Your task to perform on an android device: set an alarm Image 0: 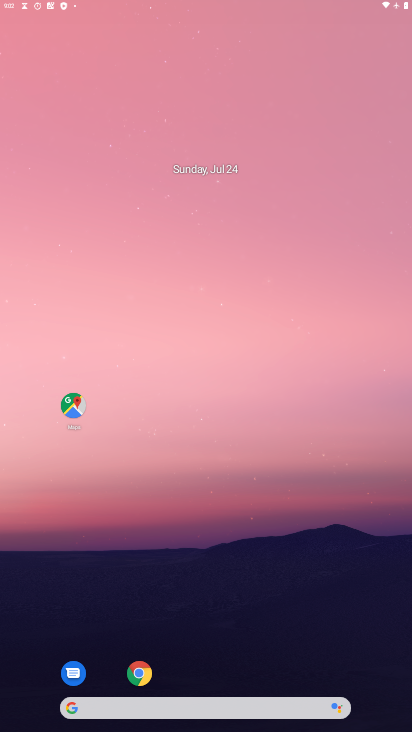
Step 0: drag from (200, 646) to (259, 34)
Your task to perform on an android device: set an alarm Image 1: 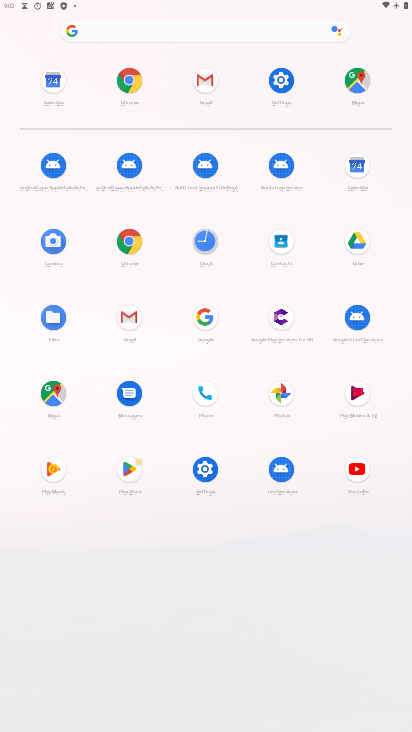
Step 1: click (203, 241)
Your task to perform on an android device: set an alarm Image 2: 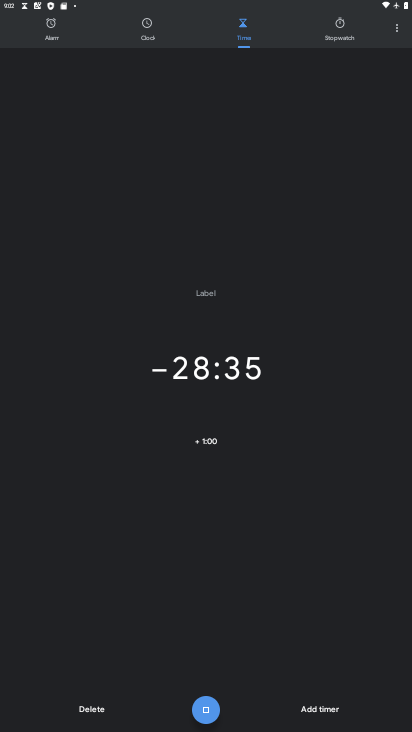
Step 2: drag from (244, 630) to (242, 323)
Your task to perform on an android device: set an alarm Image 3: 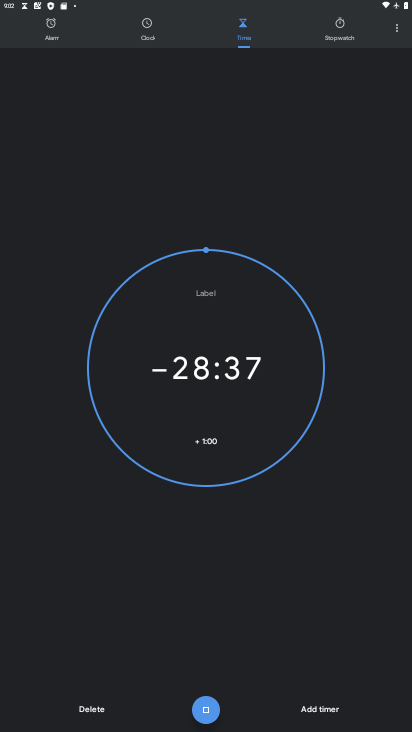
Step 3: click (40, 32)
Your task to perform on an android device: set an alarm Image 4: 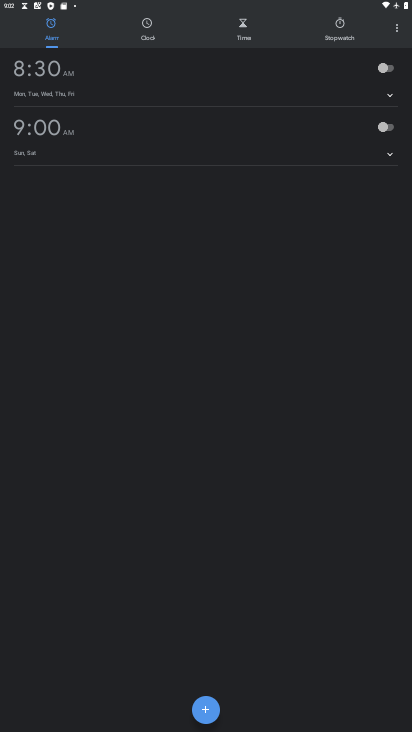
Step 4: drag from (216, 397) to (269, 39)
Your task to perform on an android device: set an alarm Image 5: 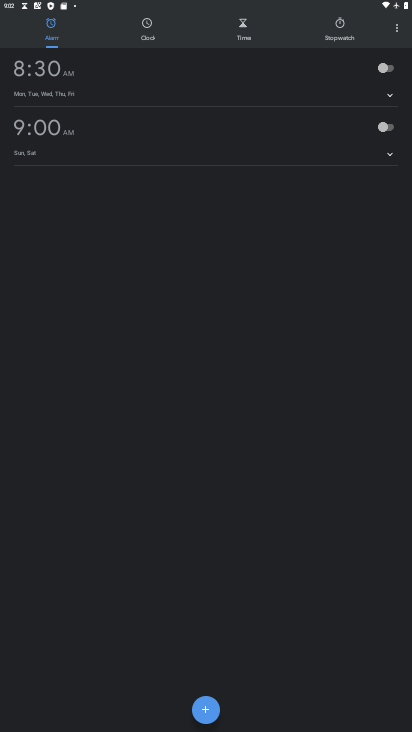
Step 5: drag from (264, 358) to (297, 244)
Your task to perform on an android device: set an alarm Image 6: 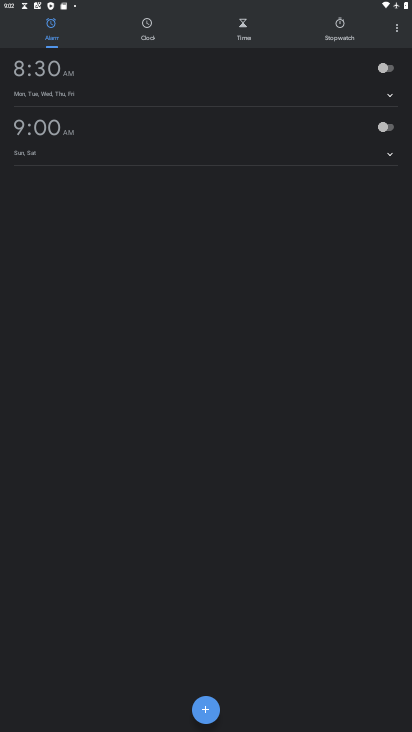
Step 6: click (378, 77)
Your task to perform on an android device: set an alarm Image 7: 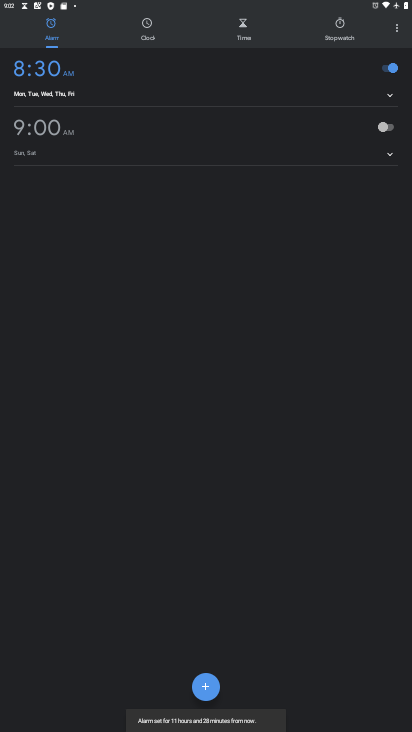
Step 7: task complete